Your task to perform on an android device: allow cookies in the chrome app Image 0: 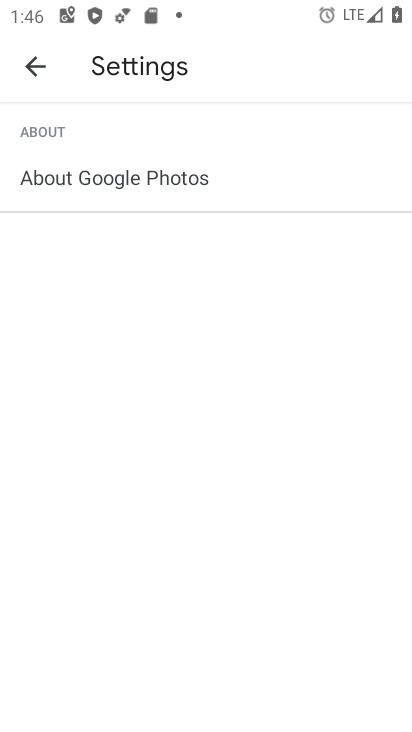
Step 0: press home button
Your task to perform on an android device: allow cookies in the chrome app Image 1: 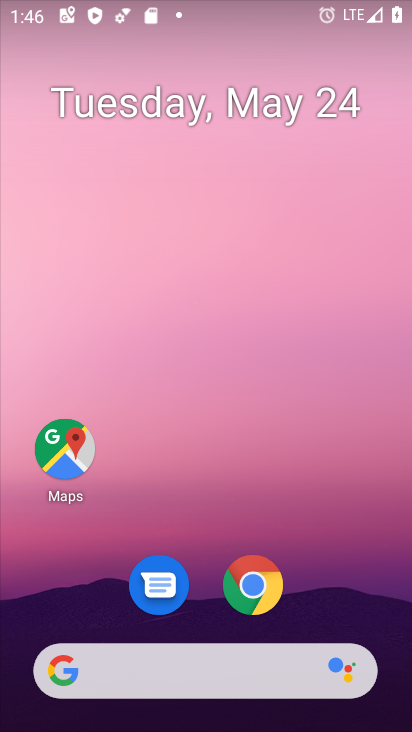
Step 1: click (265, 578)
Your task to perform on an android device: allow cookies in the chrome app Image 2: 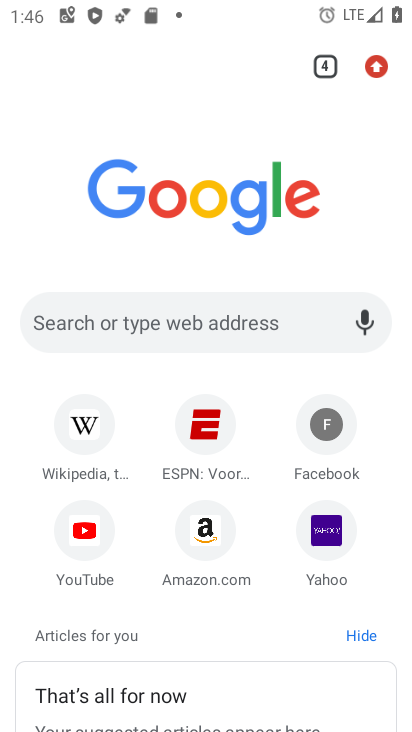
Step 2: click (376, 63)
Your task to perform on an android device: allow cookies in the chrome app Image 3: 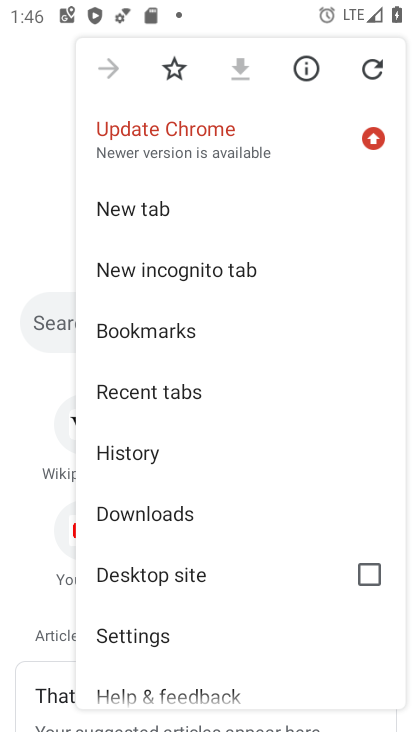
Step 3: click (174, 635)
Your task to perform on an android device: allow cookies in the chrome app Image 4: 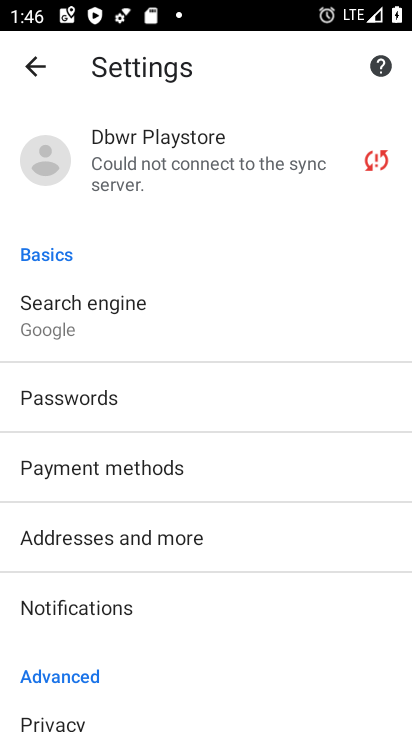
Step 4: drag from (231, 490) to (266, 253)
Your task to perform on an android device: allow cookies in the chrome app Image 5: 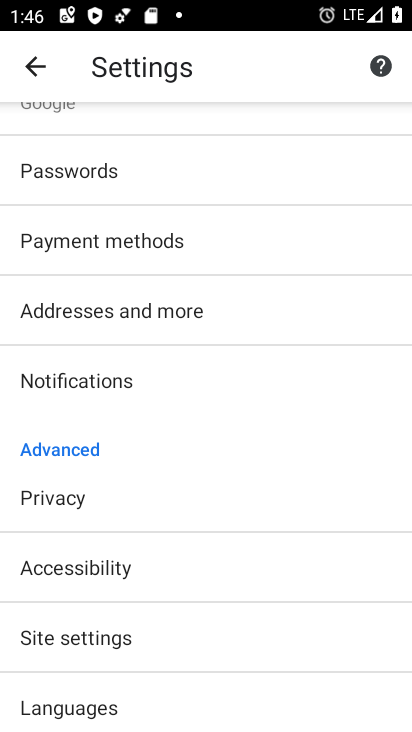
Step 5: click (174, 626)
Your task to perform on an android device: allow cookies in the chrome app Image 6: 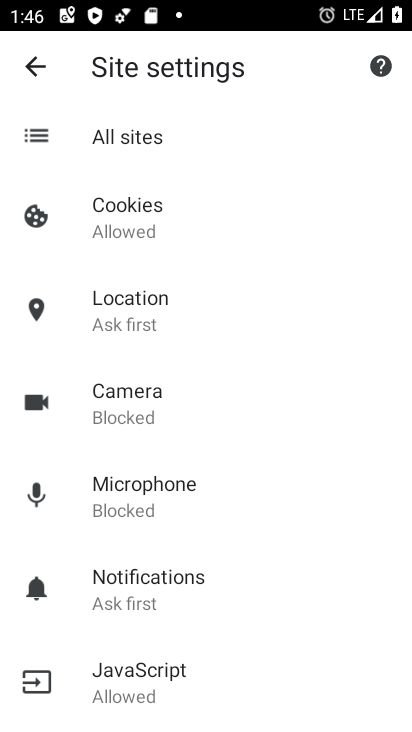
Step 6: task complete